Your task to perform on an android device: What is the speed of a train? Image 0: 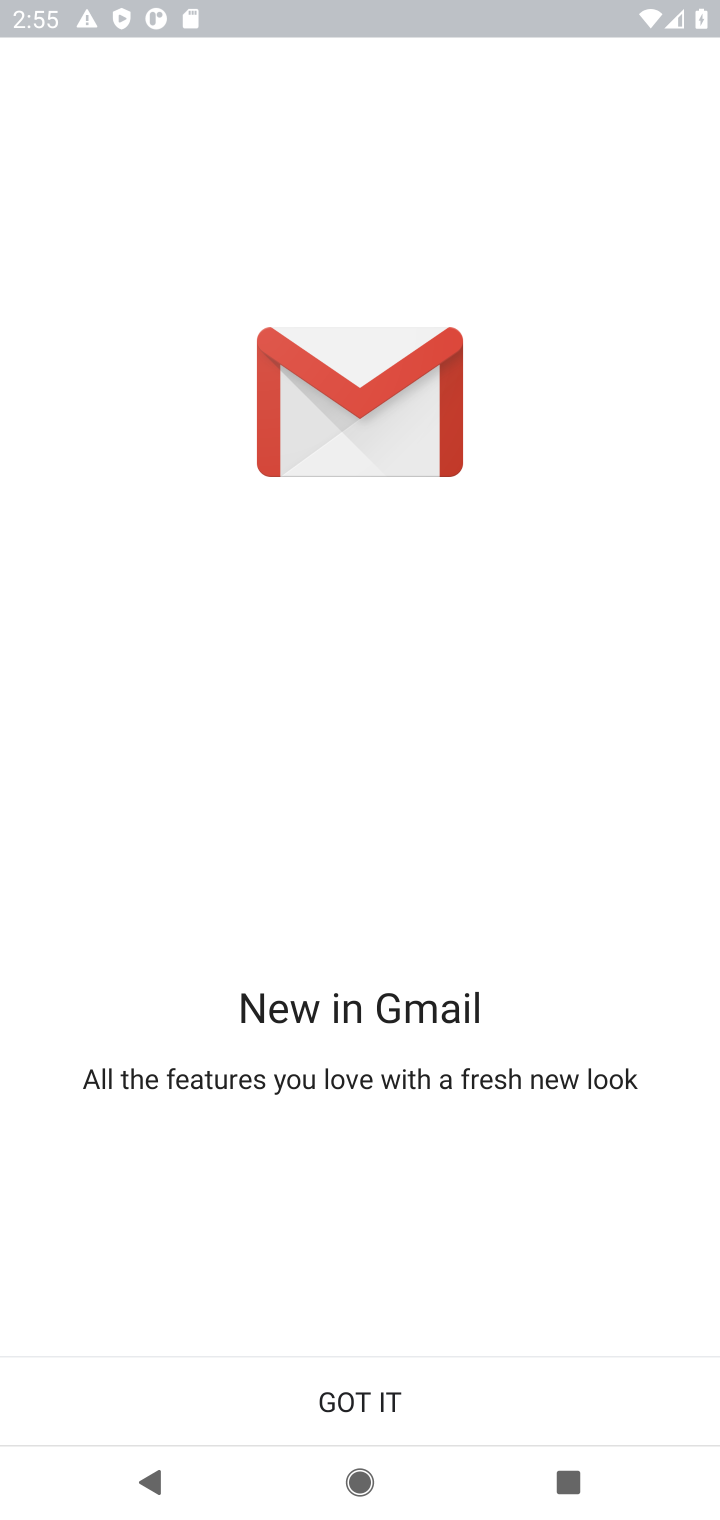
Step 0: press home button
Your task to perform on an android device: What is the speed of a train? Image 1: 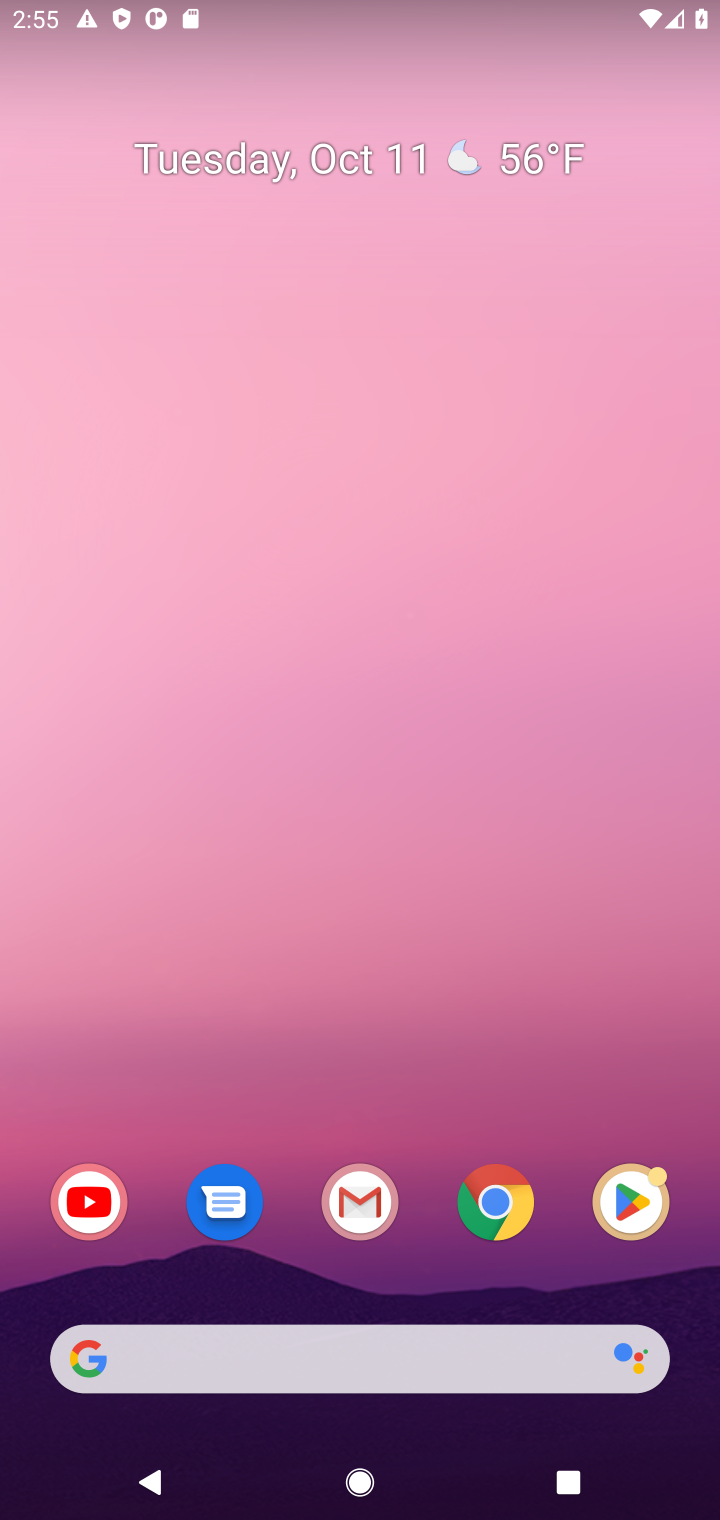
Step 1: drag from (427, 1327) to (592, 28)
Your task to perform on an android device: What is the speed of a train? Image 2: 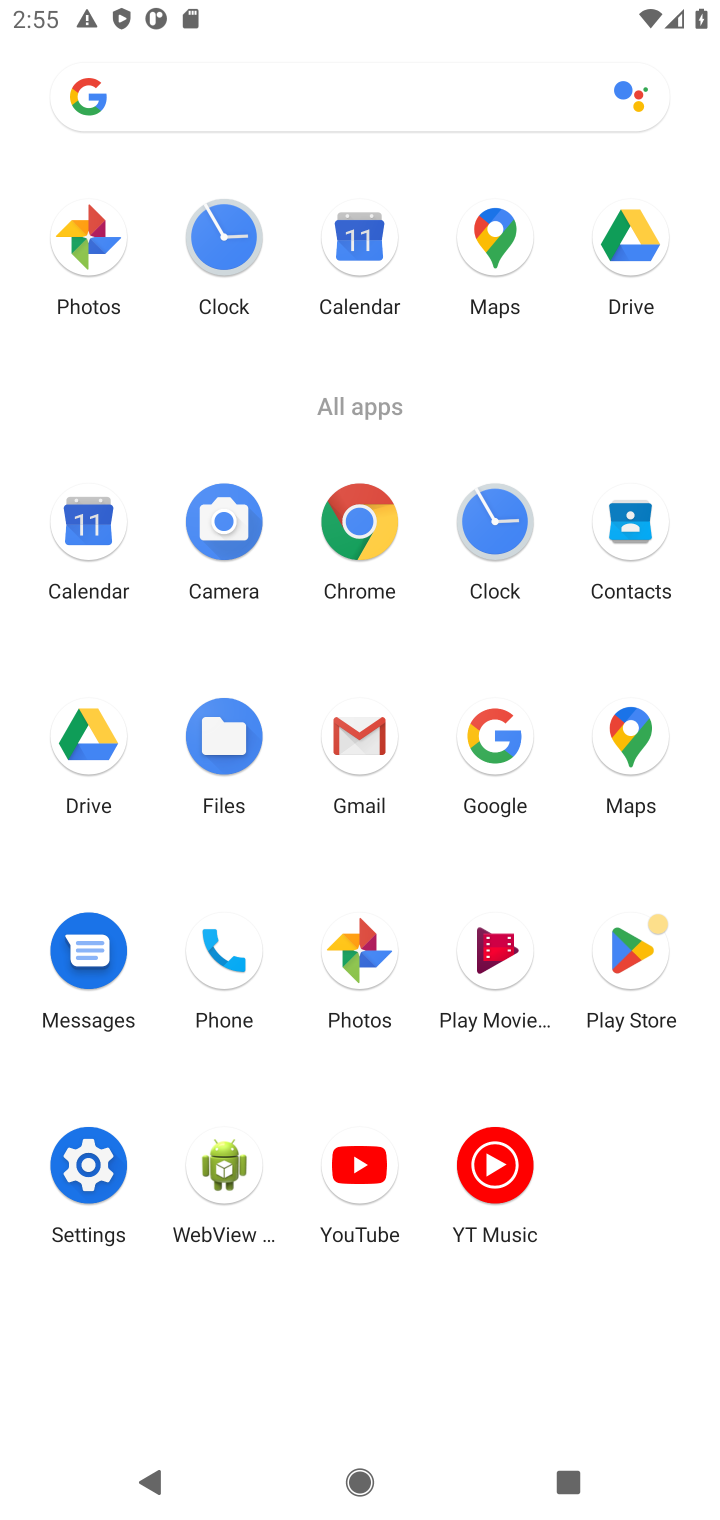
Step 2: click (345, 532)
Your task to perform on an android device: What is the speed of a train? Image 3: 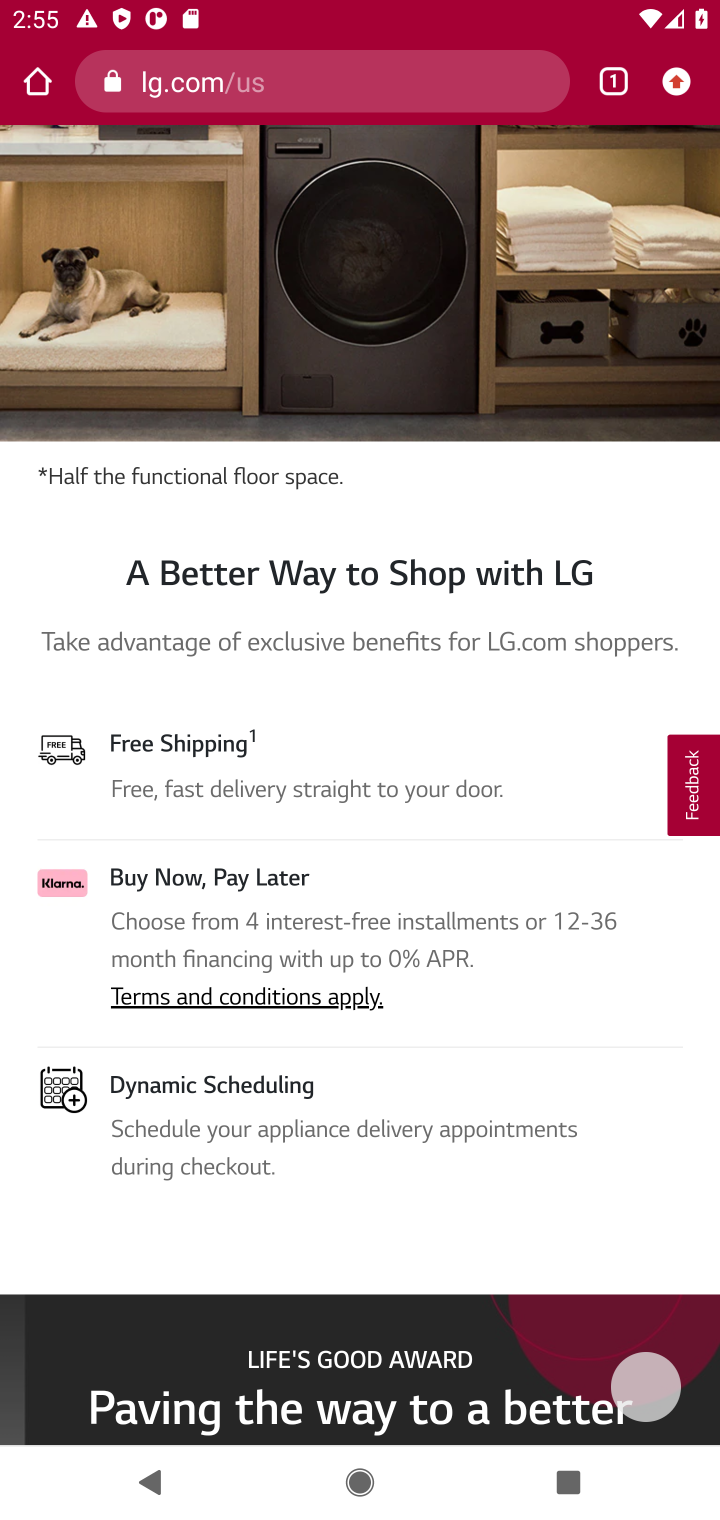
Step 3: click (356, 90)
Your task to perform on an android device: What is the speed of a train? Image 4: 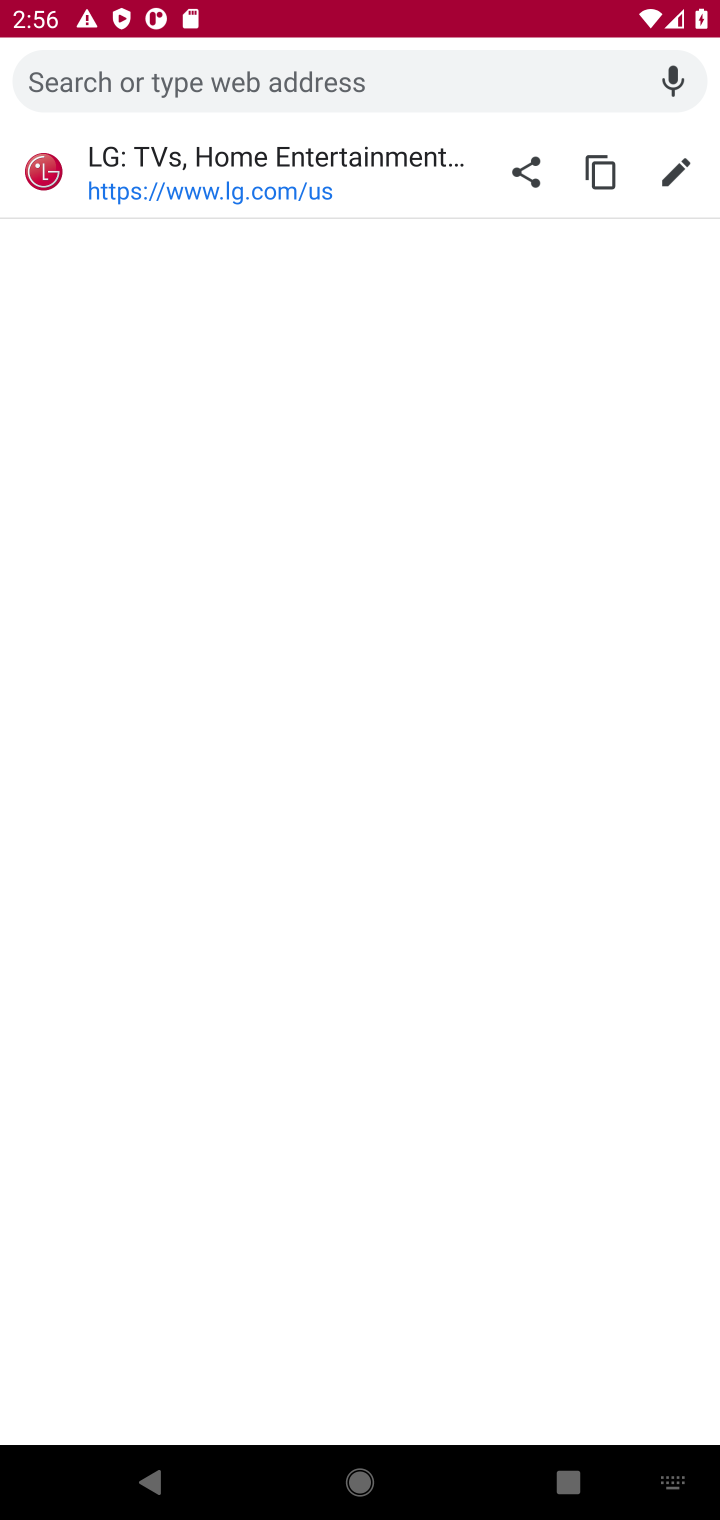
Step 4: type "What is the speed of a train?"
Your task to perform on an android device: What is the speed of a train? Image 5: 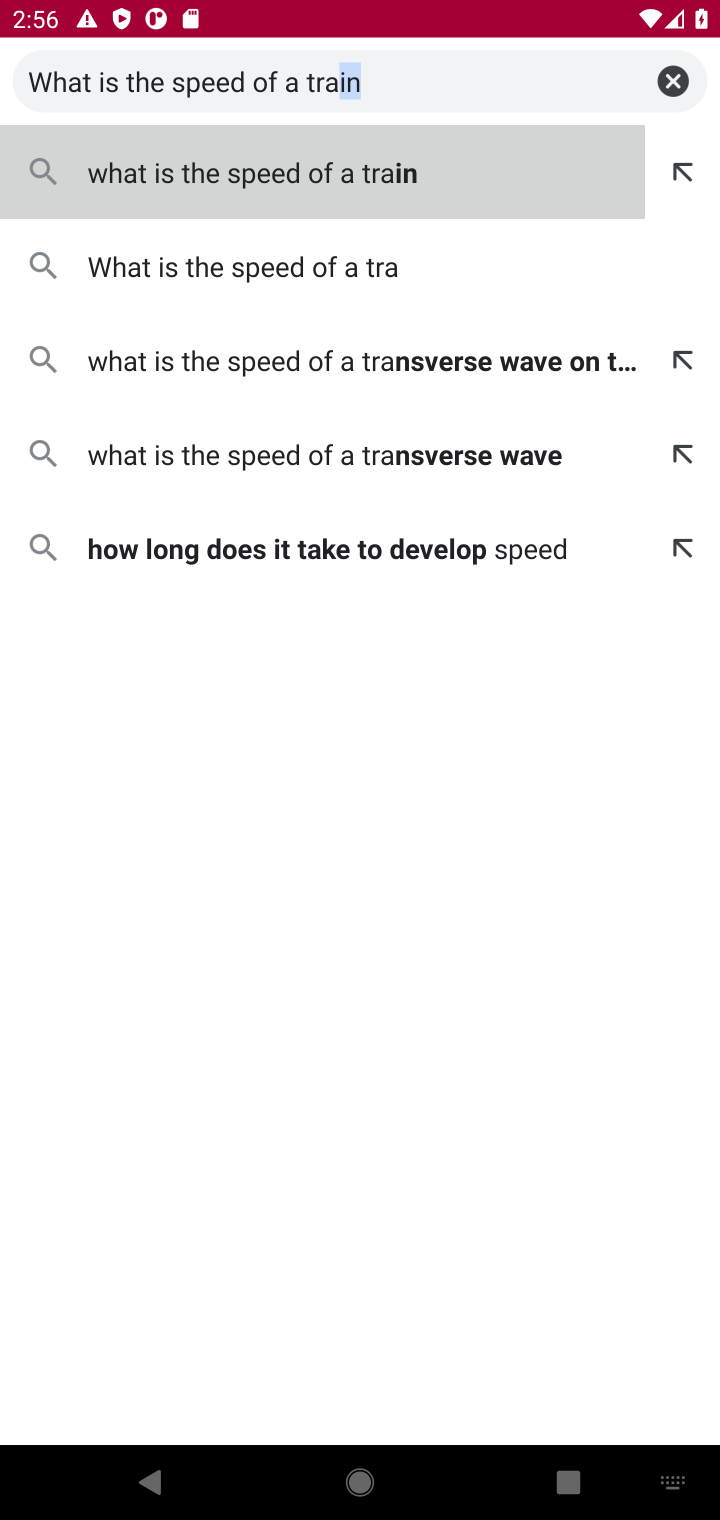
Step 5: type "What is the speed of a train?"
Your task to perform on an android device: What is the speed of a train? Image 6: 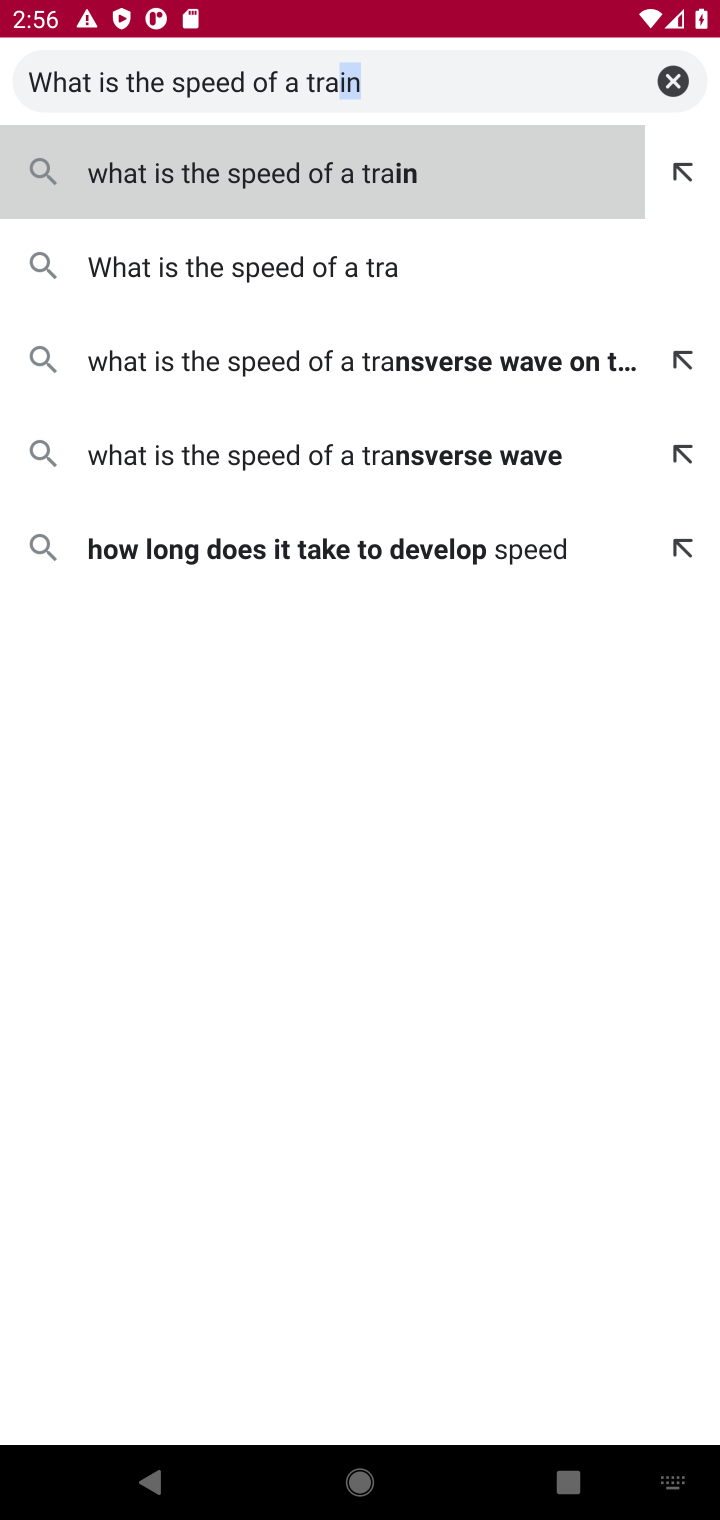
Step 6: click (375, 180)
Your task to perform on an android device: What is the speed of a train? Image 7: 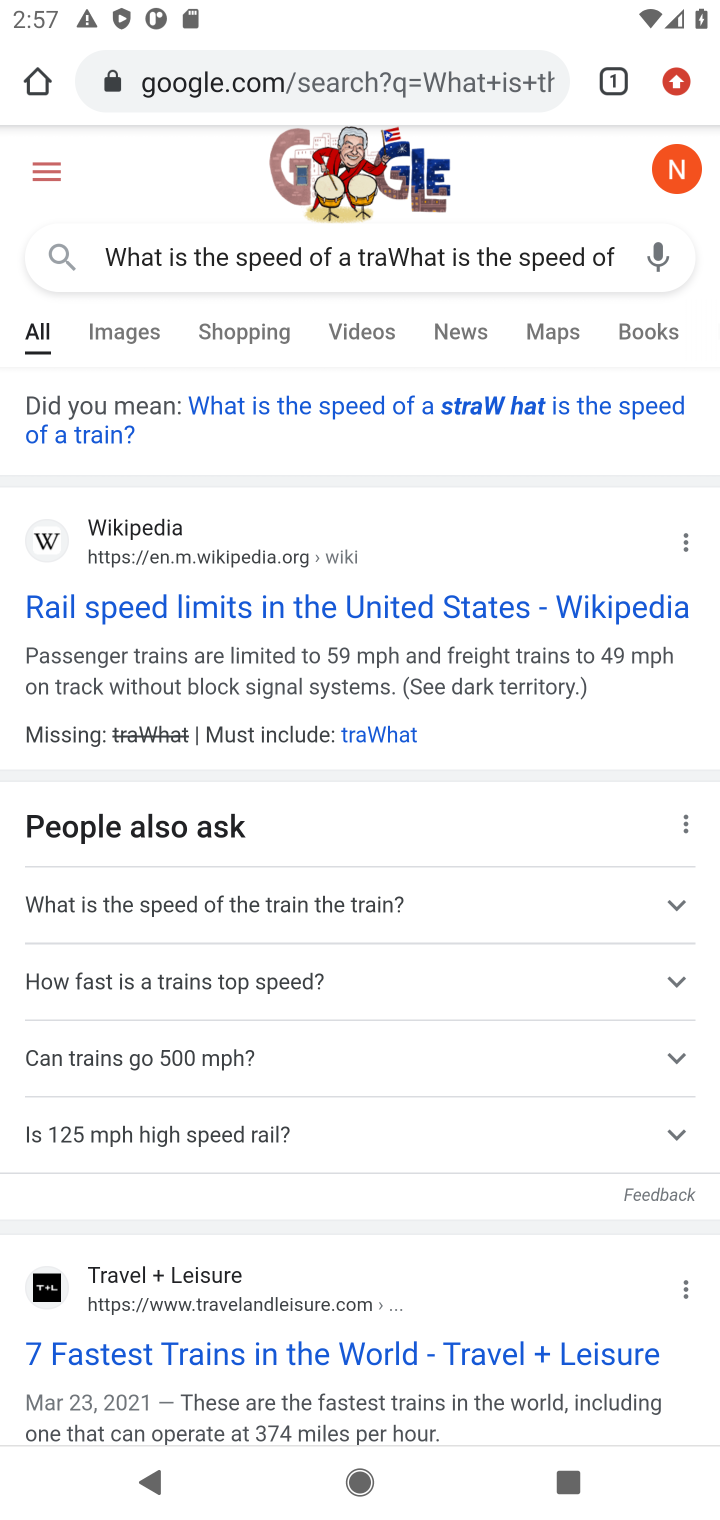
Step 7: click (329, 612)
Your task to perform on an android device: What is the speed of a train? Image 8: 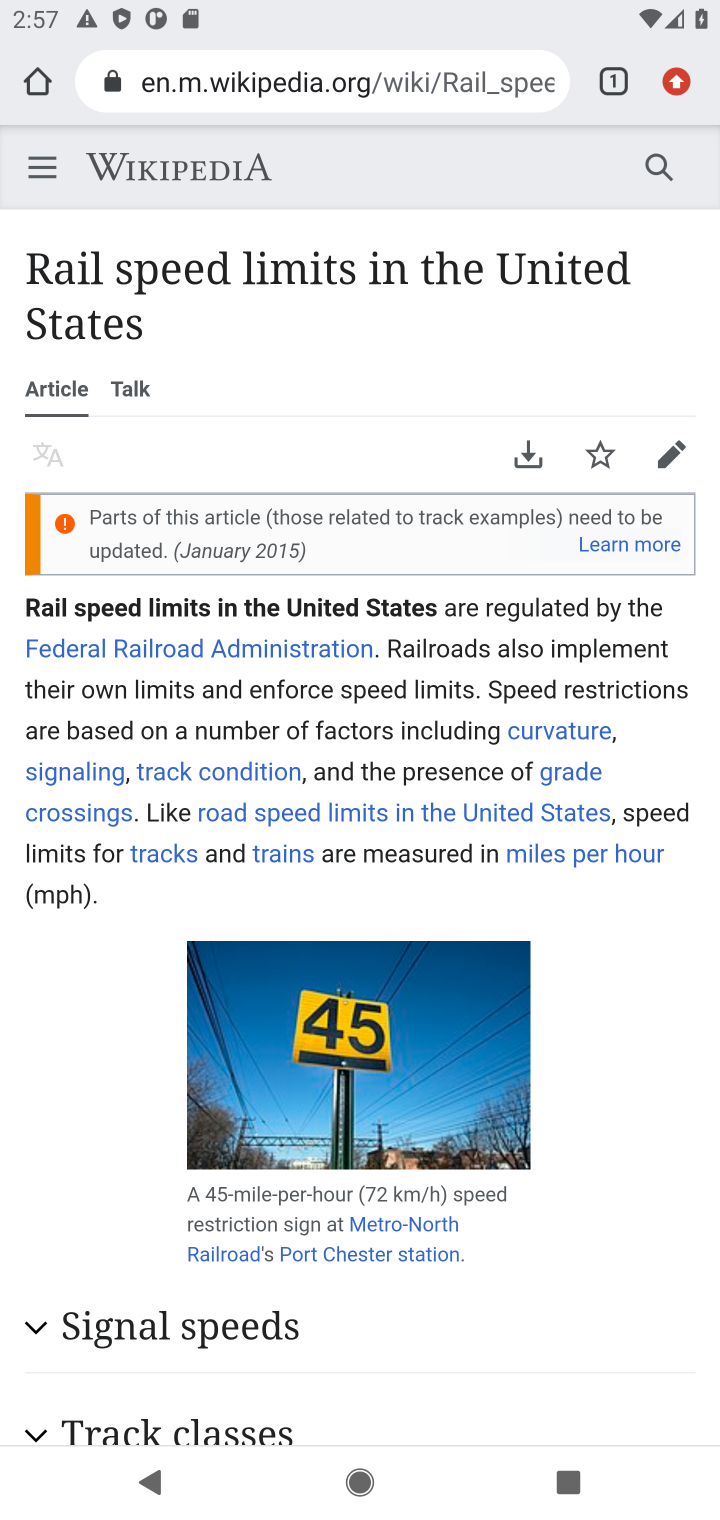
Step 8: drag from (404, 1123) to (383, 606)
Your task to perform on an android device: What is the speed of a train? Image 9: 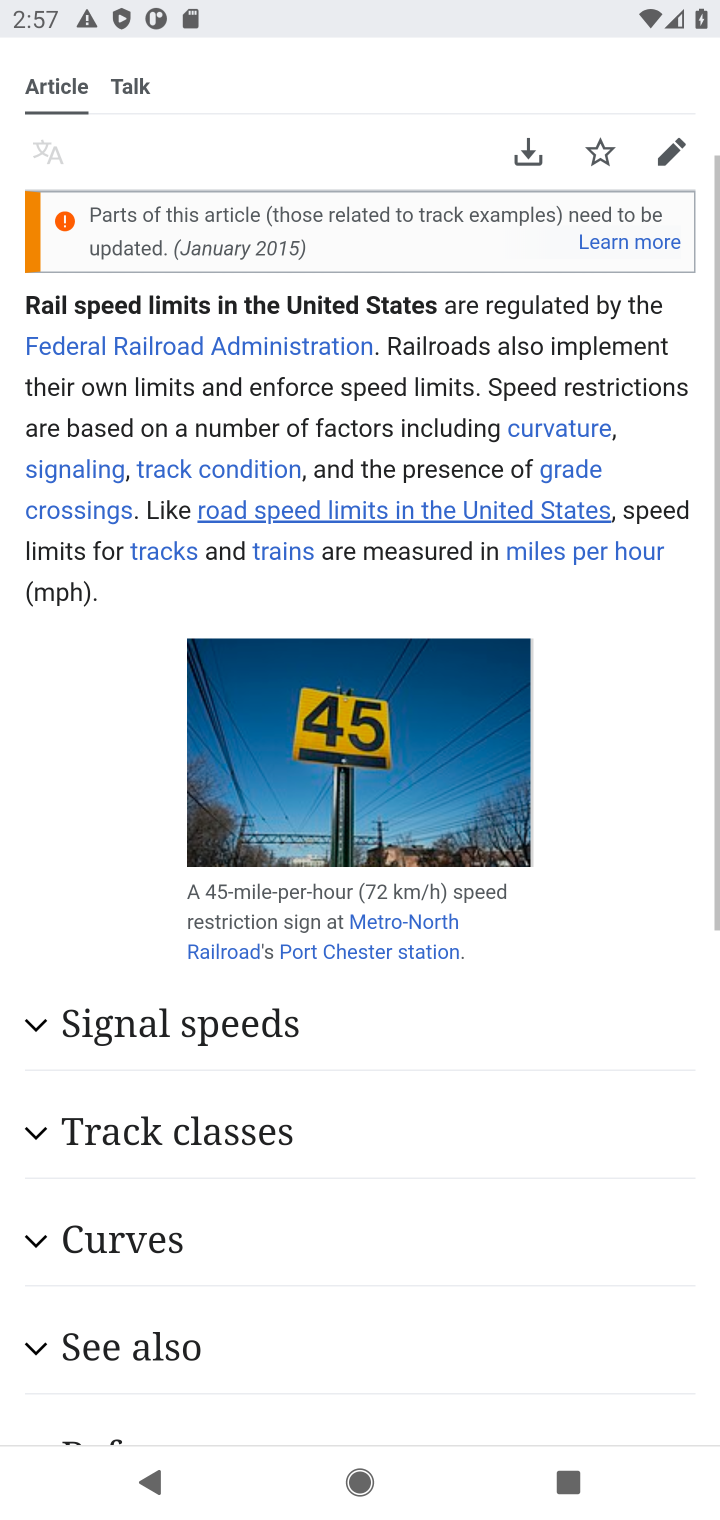
Step 9: drag from (389, 1039) to (318, 532)
Your task to perform on an android device: What is the speed of a train? Image 10: 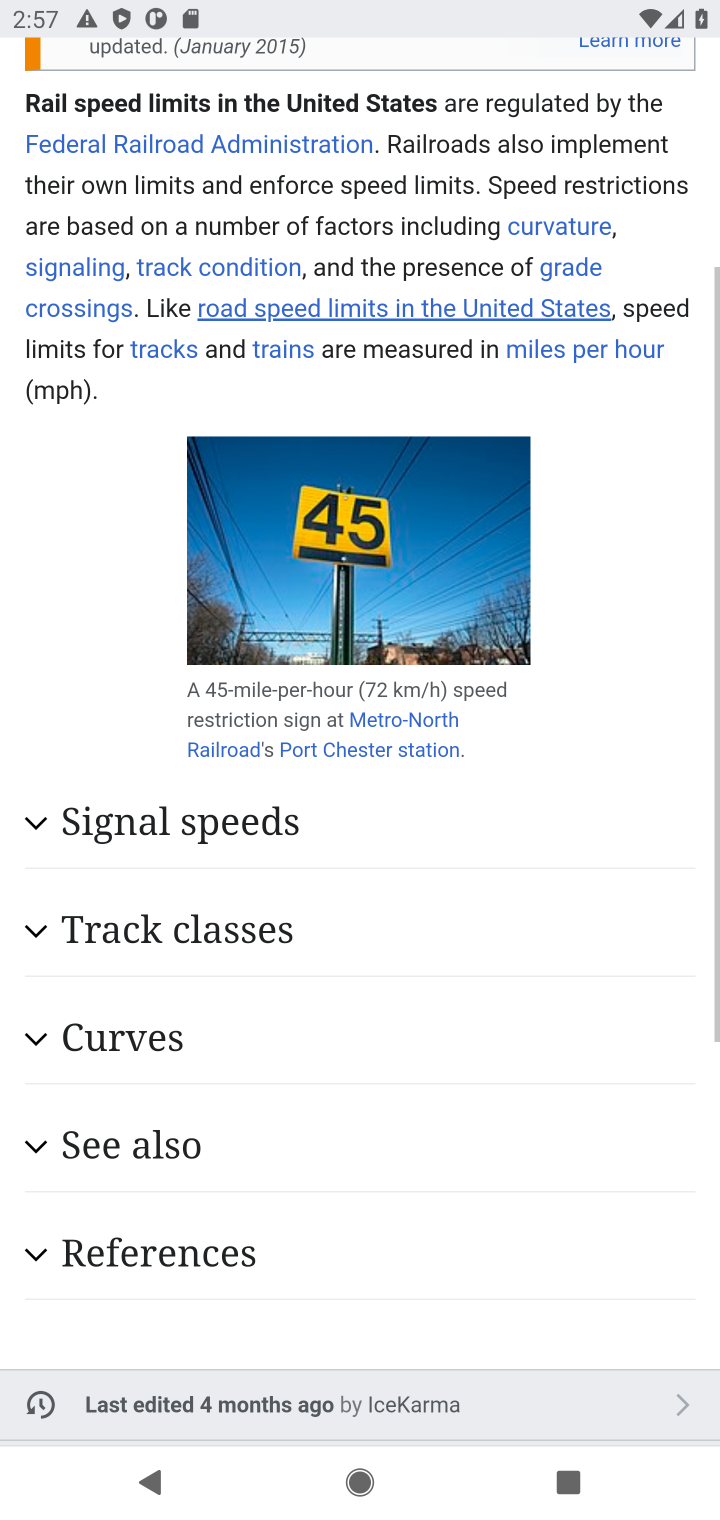
Step 10: drag from (295, 880) to (263, 731)
Your task to perform on an android device: What is the speed of a train? Image 11: 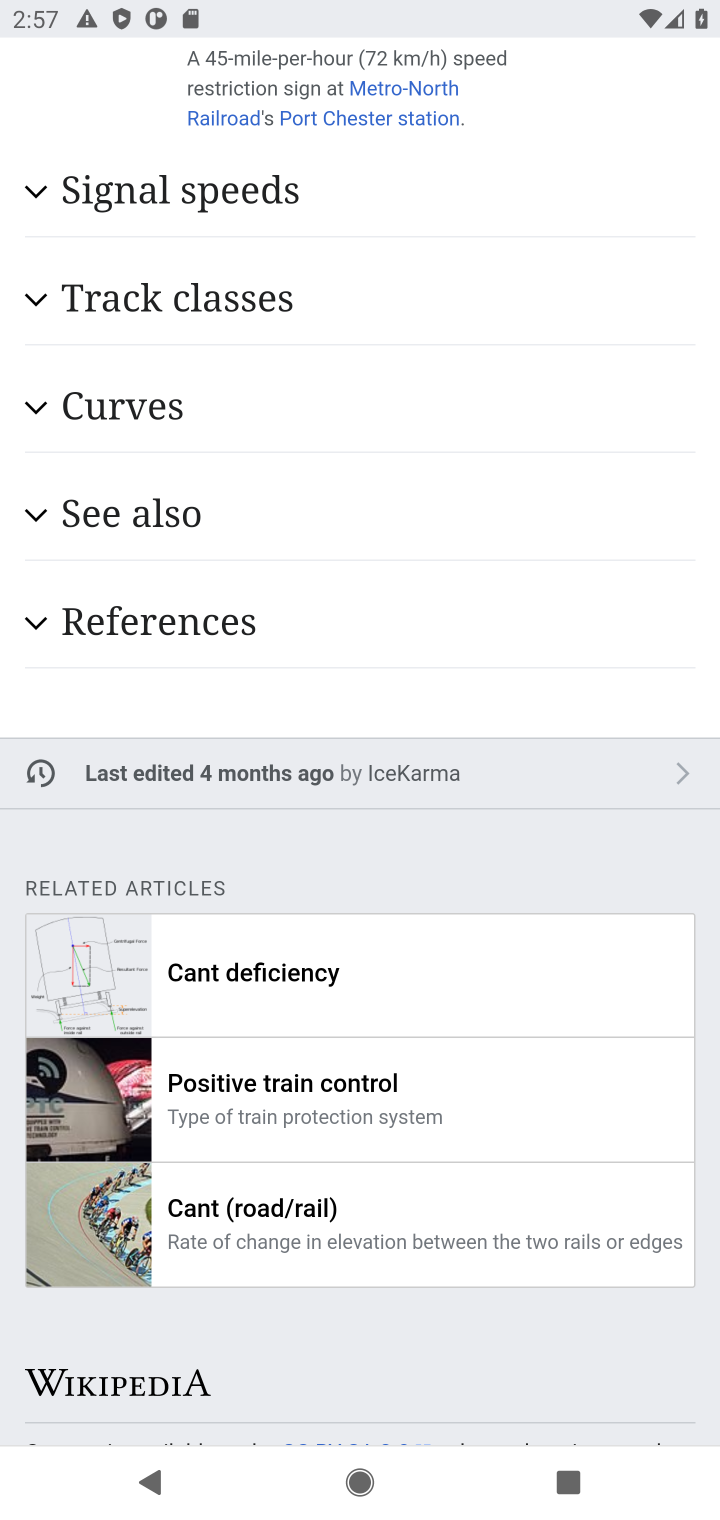
Step 11: drag from (396, 456) to (419, 364)
Your task to perform on an android device: What is the speed of a train? Image 12: 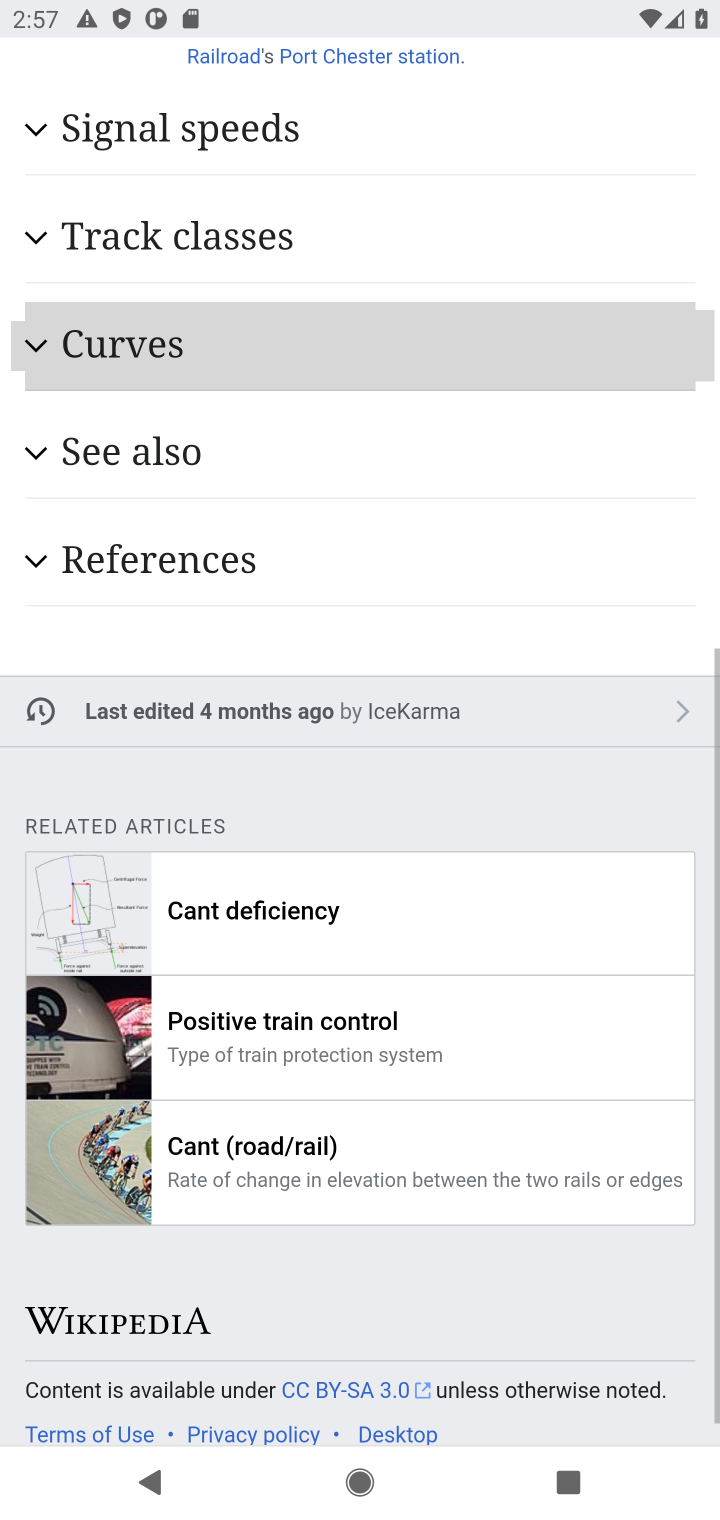
Step 12: drag from (510, 1209) to (509, 539)
Your task to perform on an android device: What is the speed of a train? Image 13: 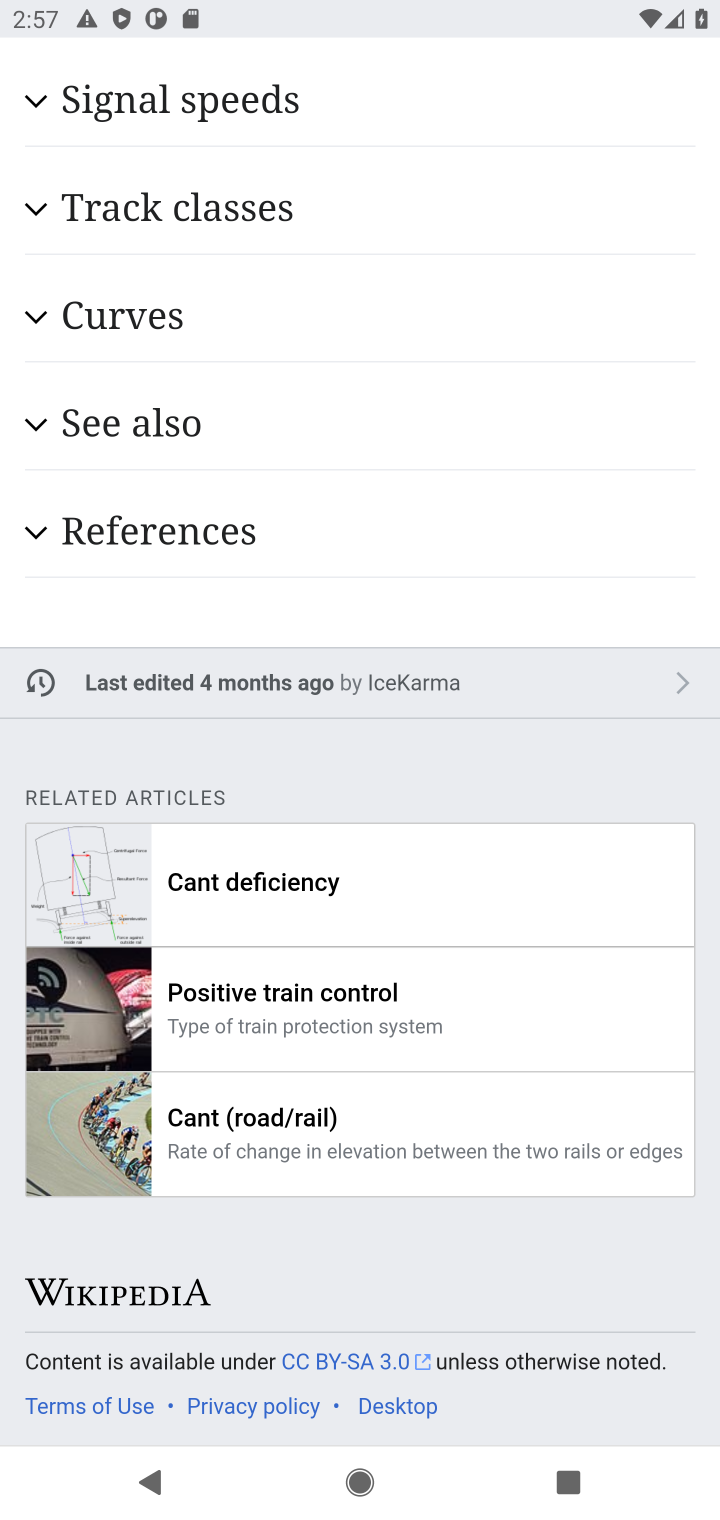
Step 13: drag from (428, 762) to (476, 137)
Your task to perform on an android device: What is the speed of a train? Image 14: 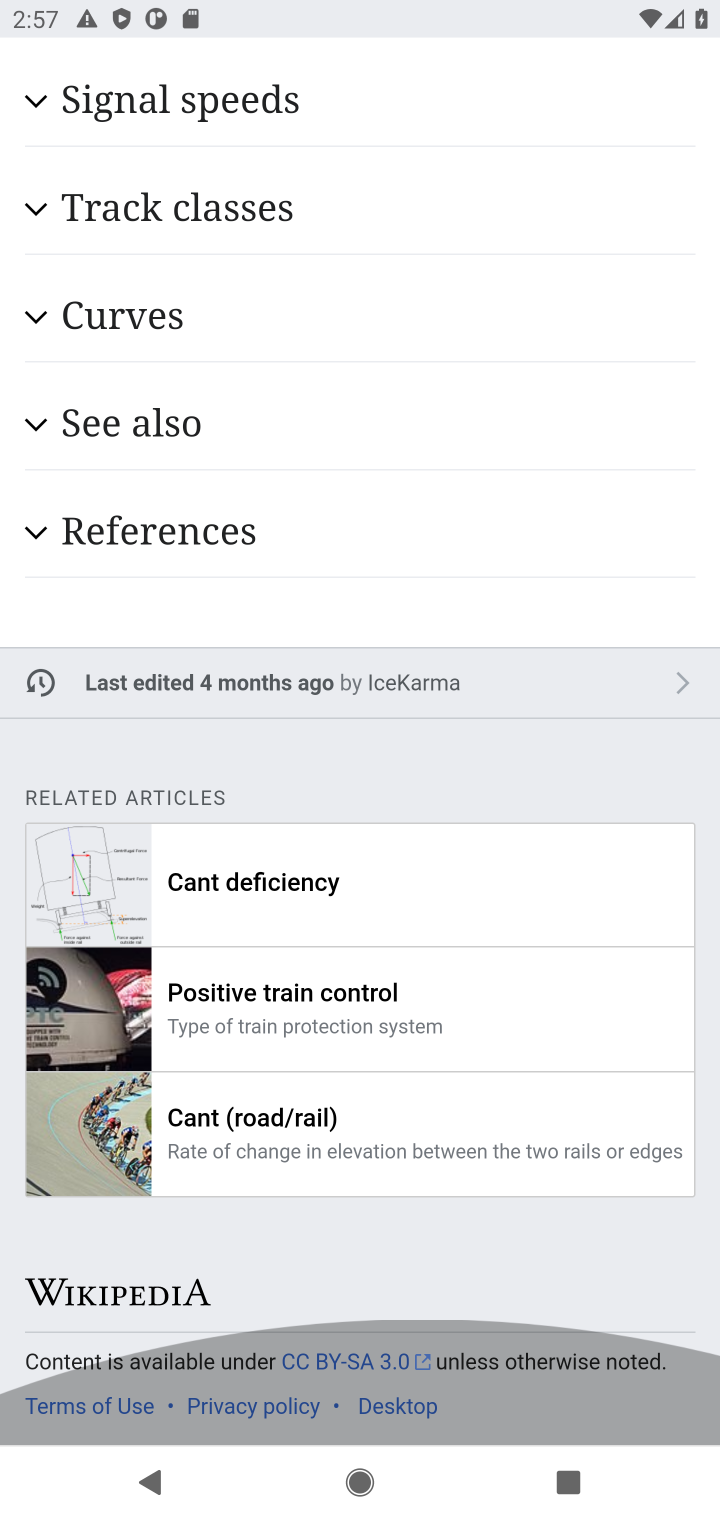
Step 14: click (463, 95)
Your task to perform on an android device: What is the speed of a train? Image 15: 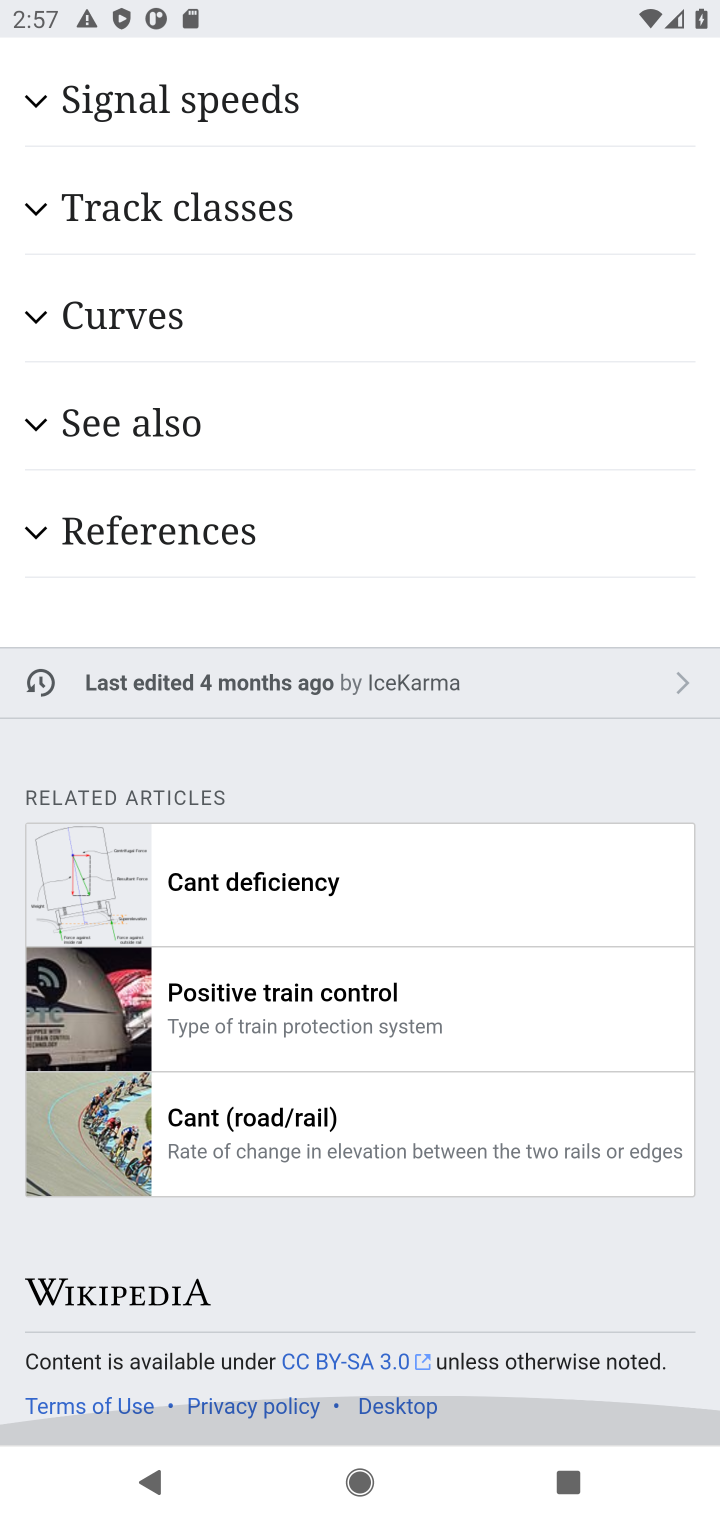
Step 15: click (433, 352)
Your task to perform on an android device: What is the speed of a train? Image 16: 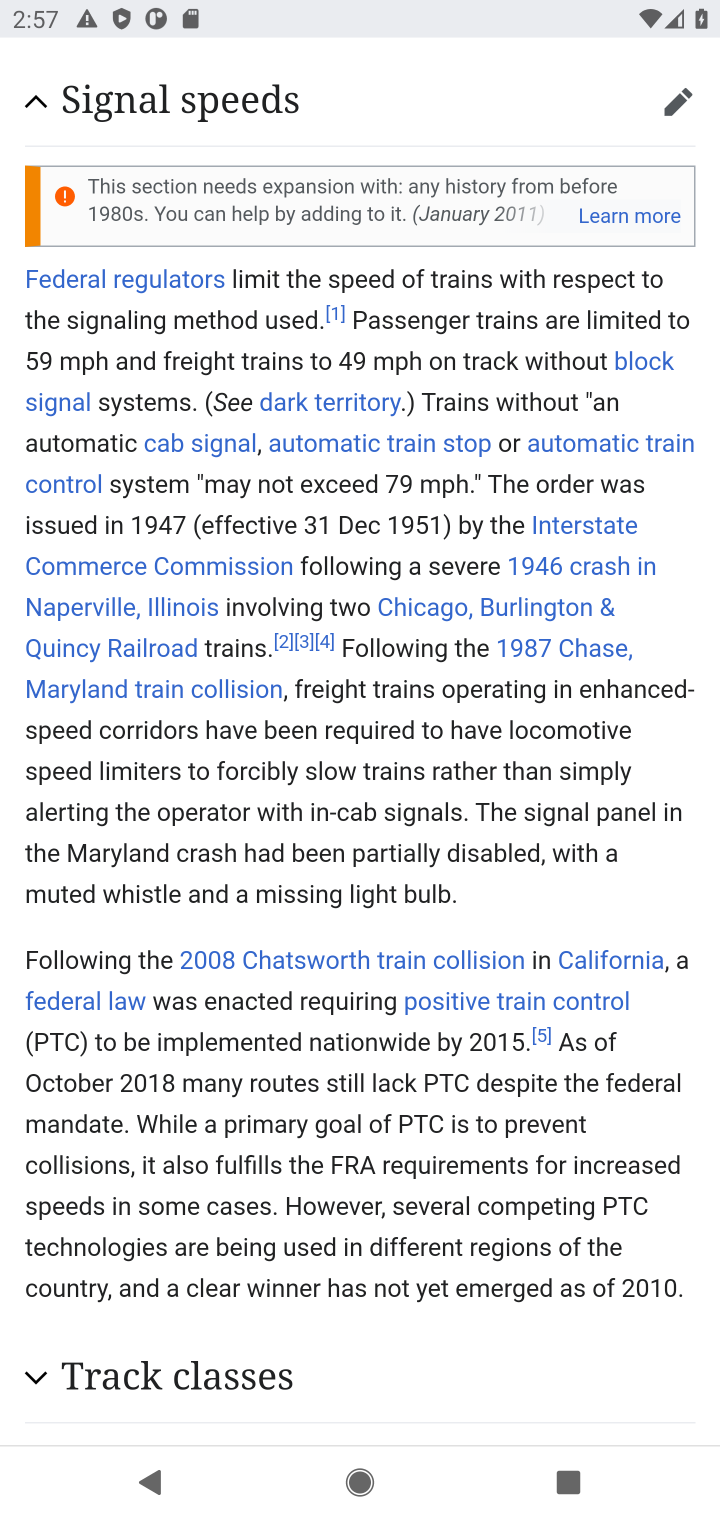
Step 16: press back button
Your task to perform on an android device: What is the speed of a train? Image 17: 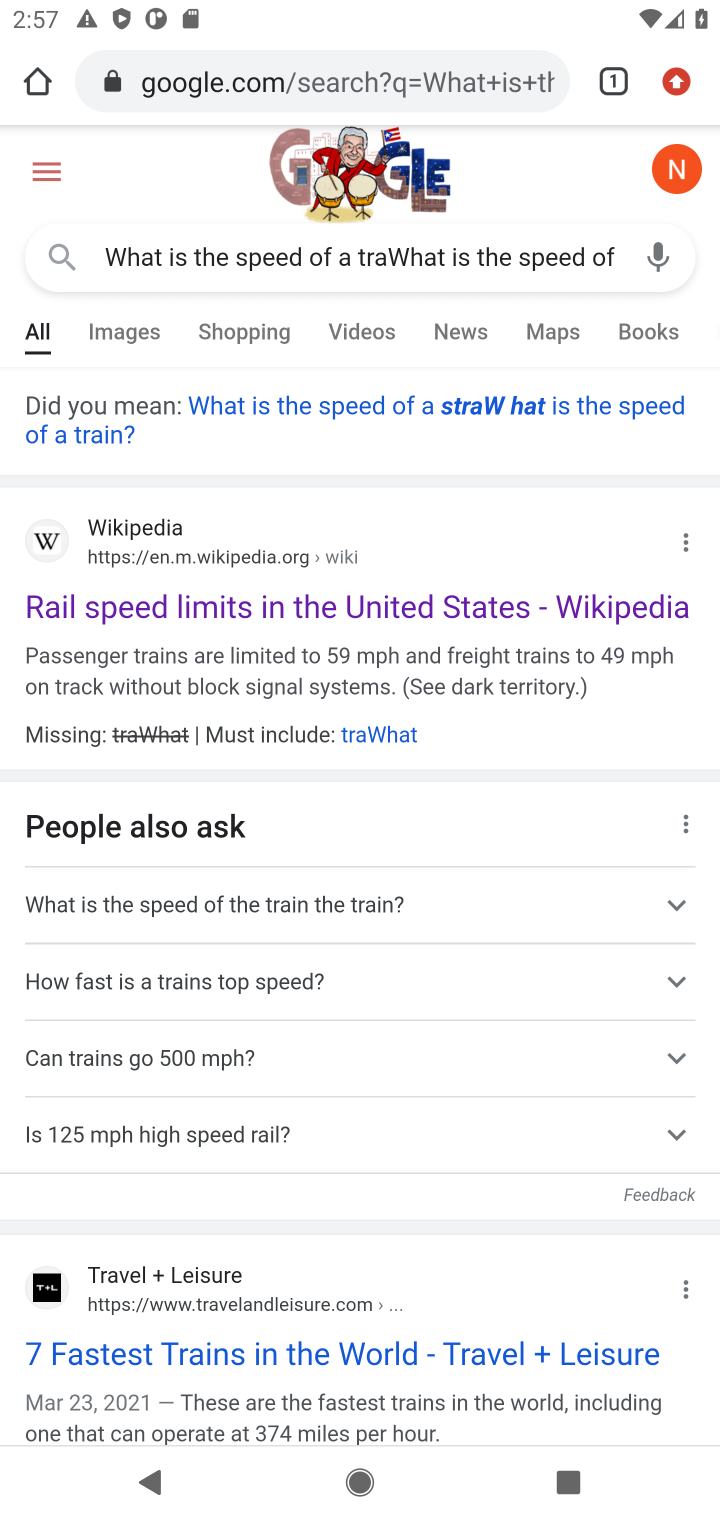
Step 17: click (264, 1375)
Your task to perform on an android device: What is the speed of a train? Image 18: 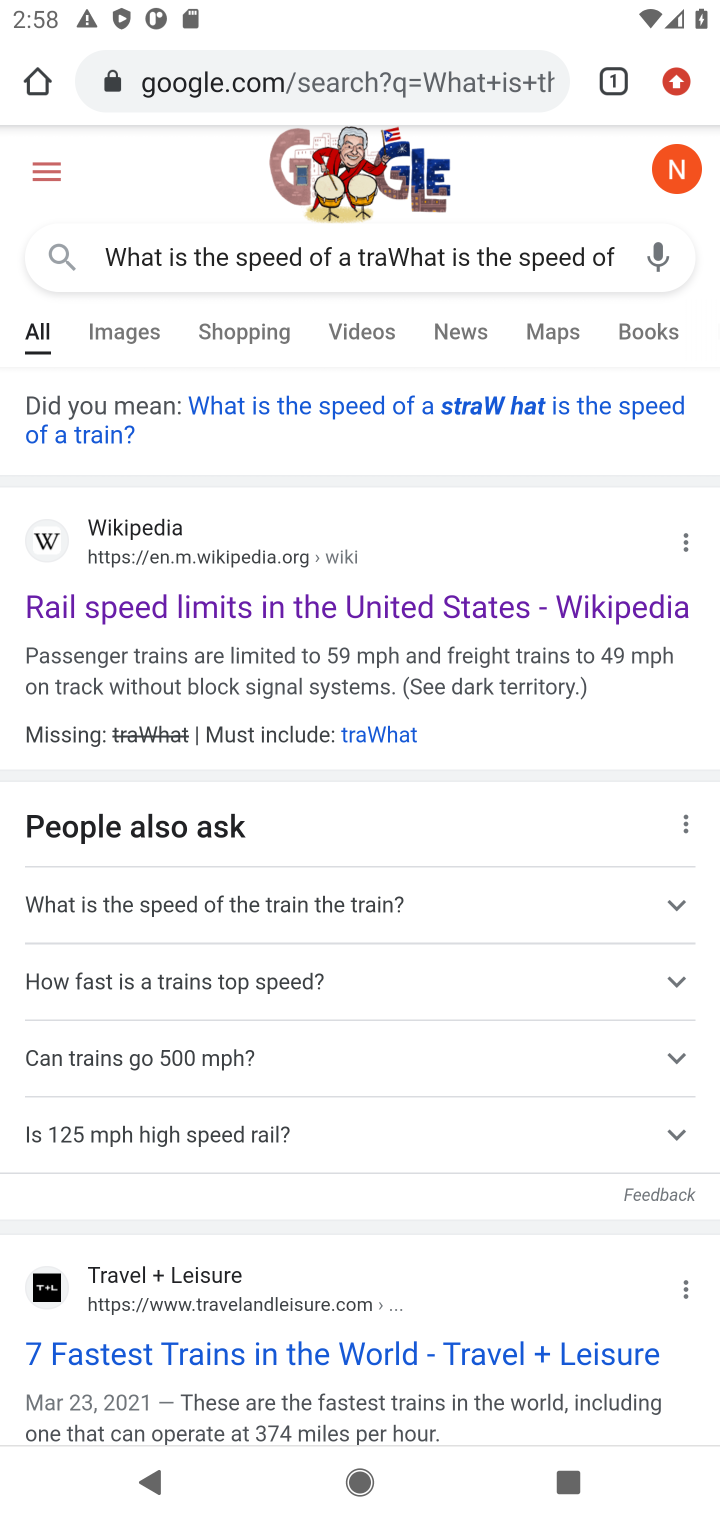
Step 18: click (317, 1320)
Your task to perform on an android device: What is the speed of a train? Image 19: 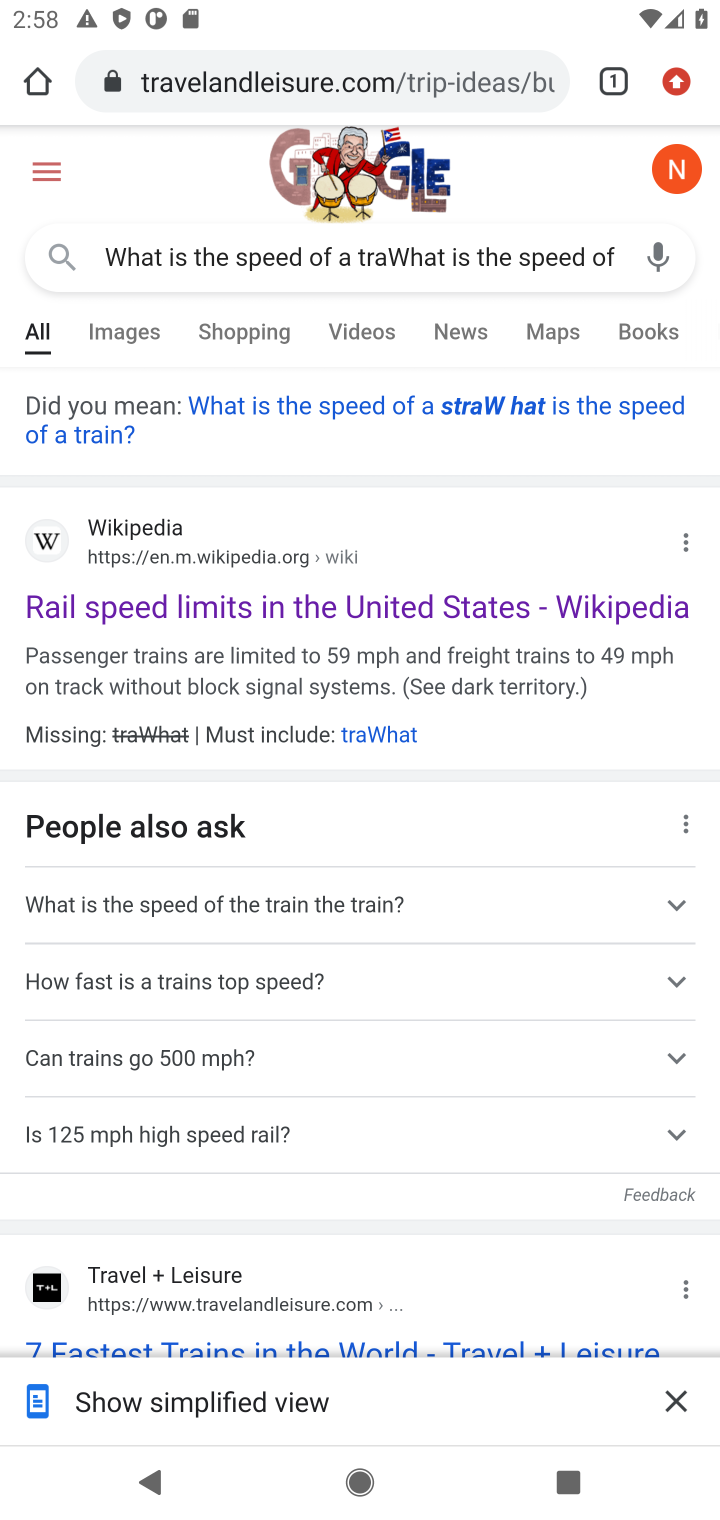
Step 19: click (691, 1415)
Your task to perform on an android device: What is the speed of a train? Image 20: 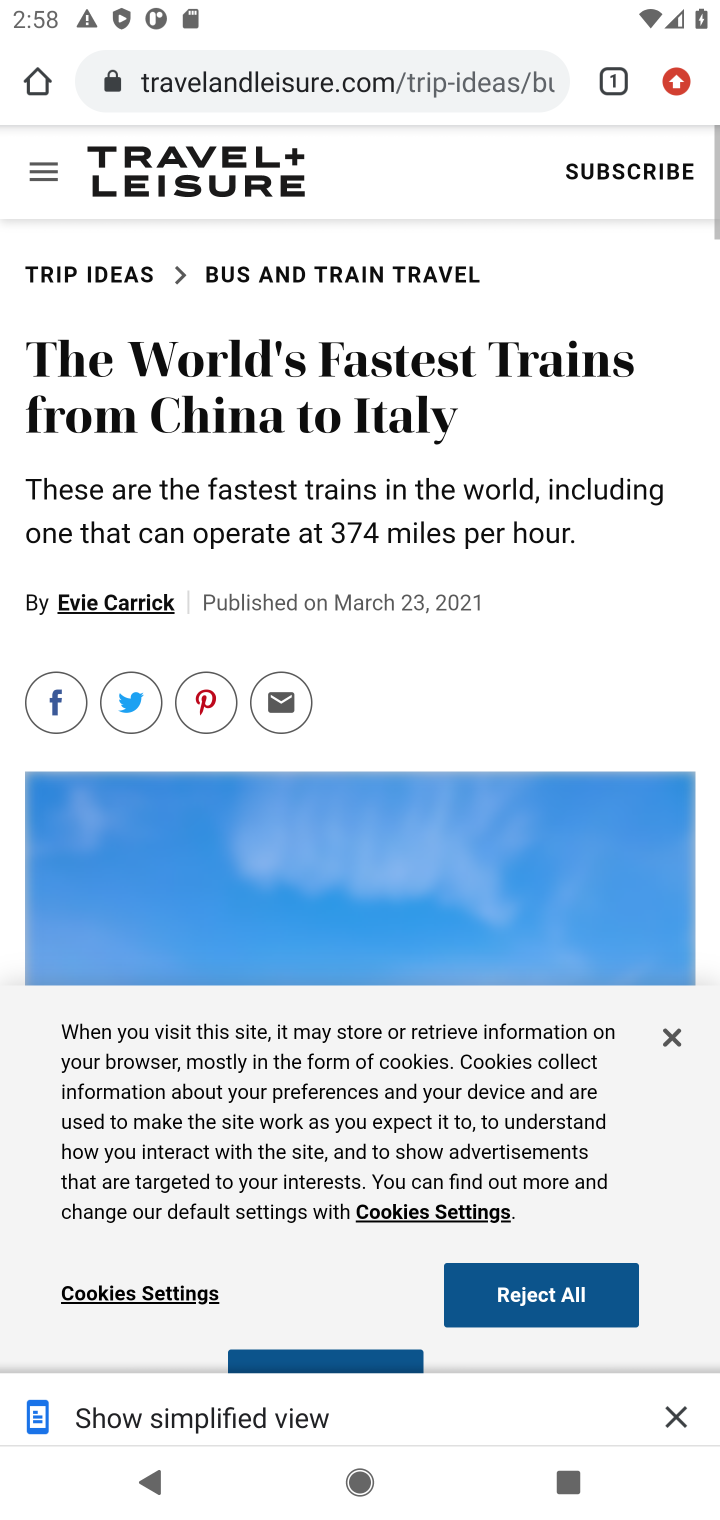
Step 20: click (391, 1338)
Your task to perform on an android device: What is the speed of a train? Image 21: 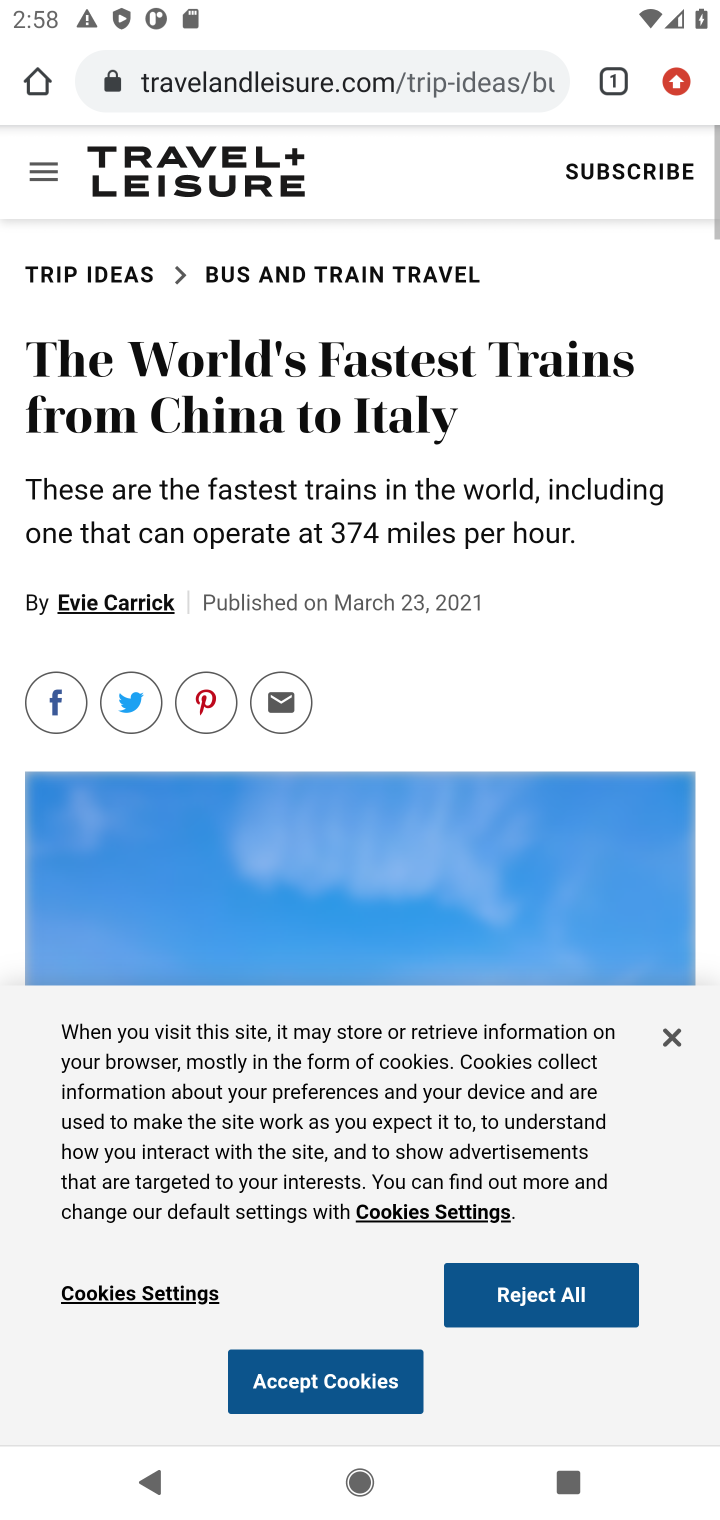
Step 21: click (522, 1297)
Your task to perform on an android device: What is the speed of a train? Image 22: 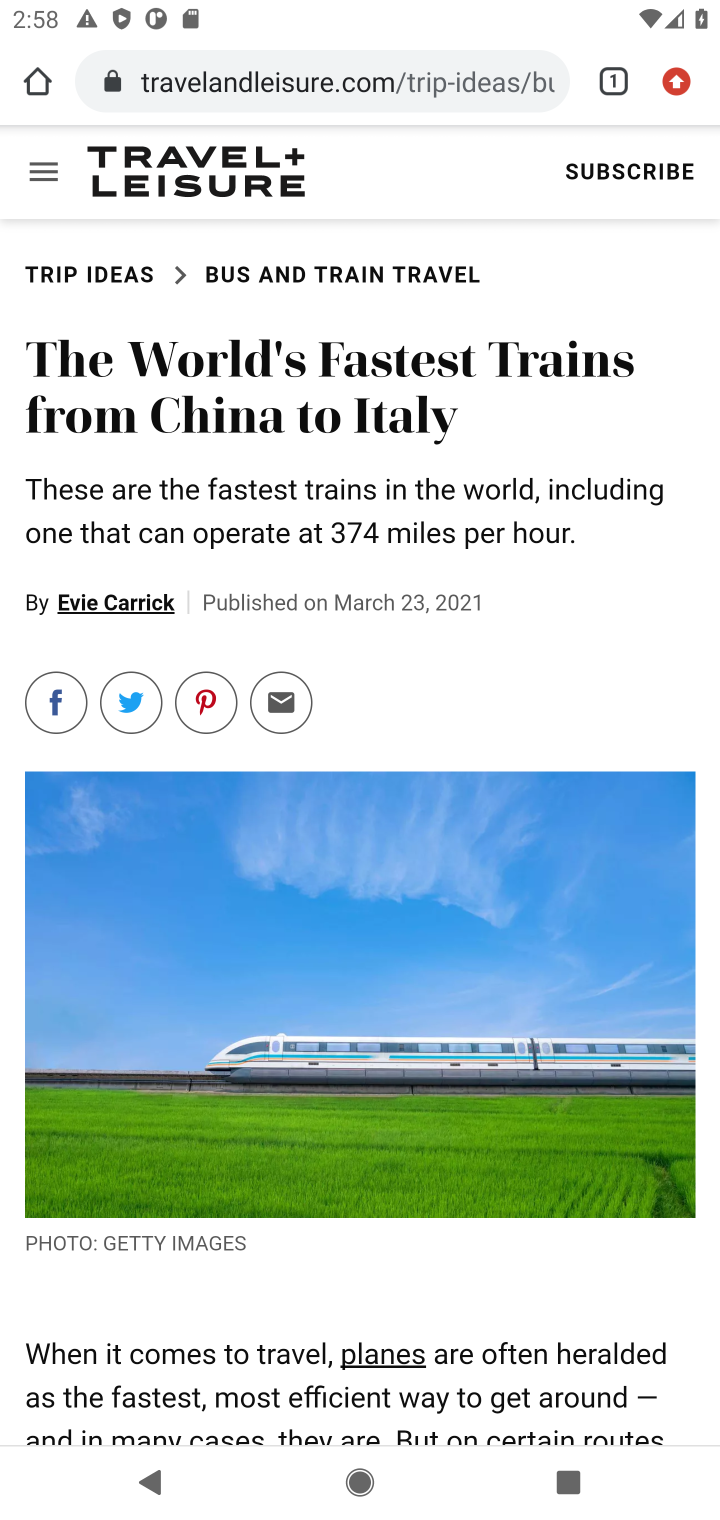
Step 22: task complete